Your task to perform on an android device: snooze an email in the gmail app Image 0: 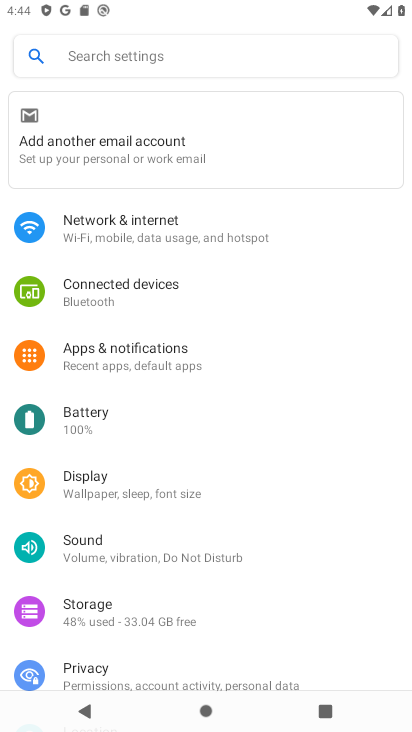
Step 0: press home button
Your task to perform on an android device: snooze an email in the gmail app Image 1: 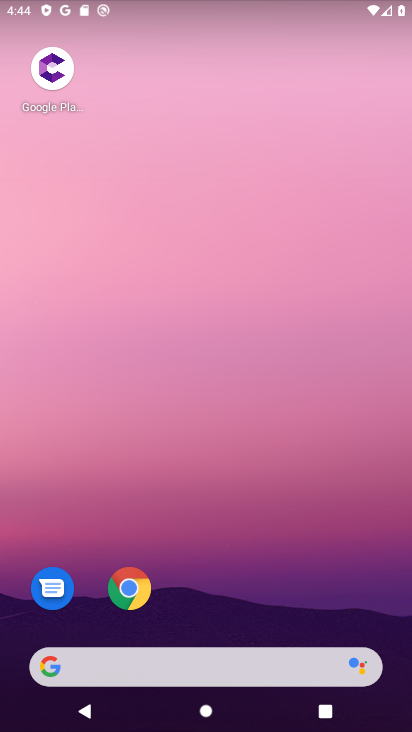
Step 1: click (309, 125)
Your task to perform on an android device: snooze an email in the gmail app Image 2: 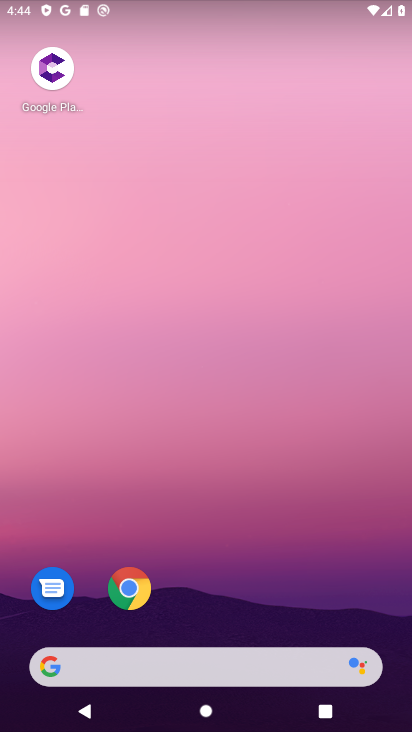
Step 2: drag from (236, 592) to (275, 222)
Your task to perform on an android device: snooze an email in the gmail app Image 3: 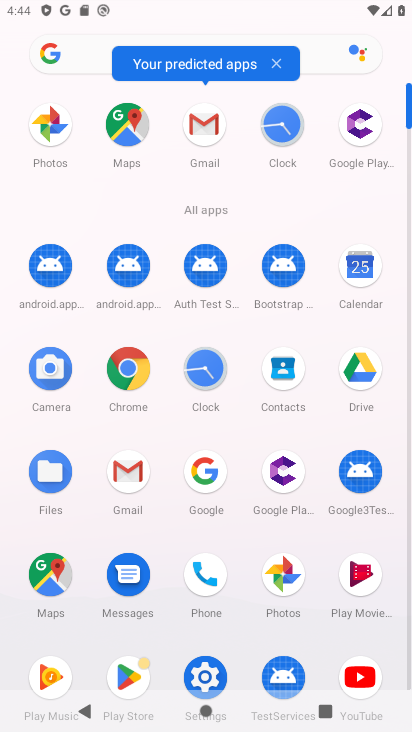
Step 3: click (122, 479)
Your task to perform on an android device: snooze an email in the gmail app Image 4: 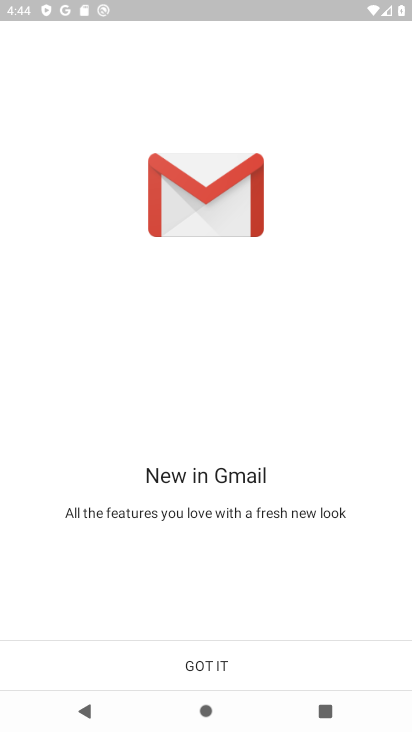
Step 4: click (202, 668)
Your task to perform on an android device: snooze an email in the gmail app Image 5: 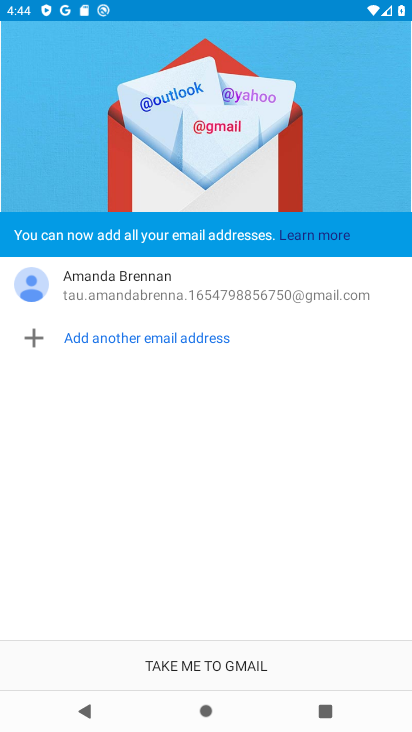
Step 5: click (202, 668)
Your task to perform on an android device: snooze an email in the gmail app Image 6: 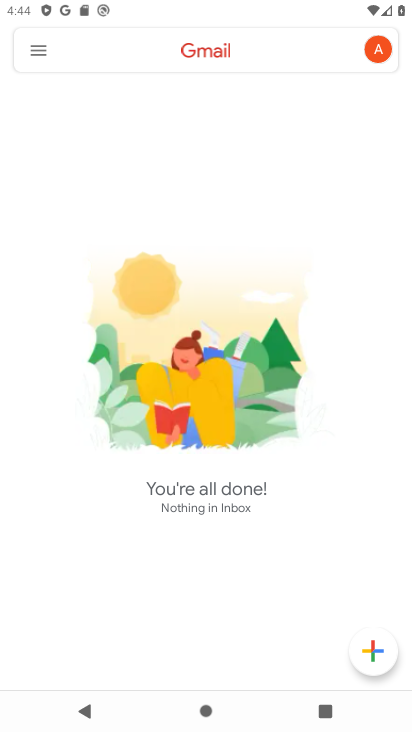
Step 6: task complete